Your task to perform on an android device: create a new album in the google photos Image 0: 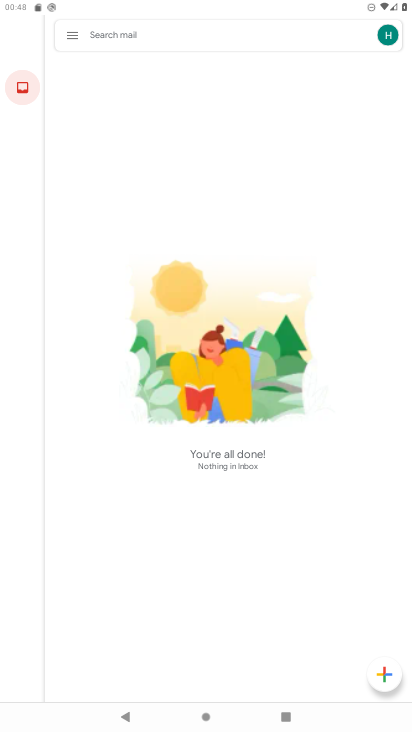
Step 0: press home button
Your task to perform on an android device: create a new album in the google photos Image 1: 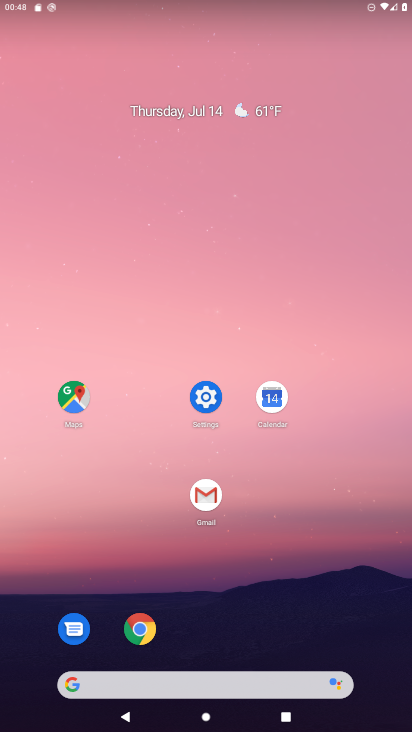
Step 1: drag from (400, 716) to (325, 121)
Your task to perform on an android device: create a new album in the google photos Image 2: 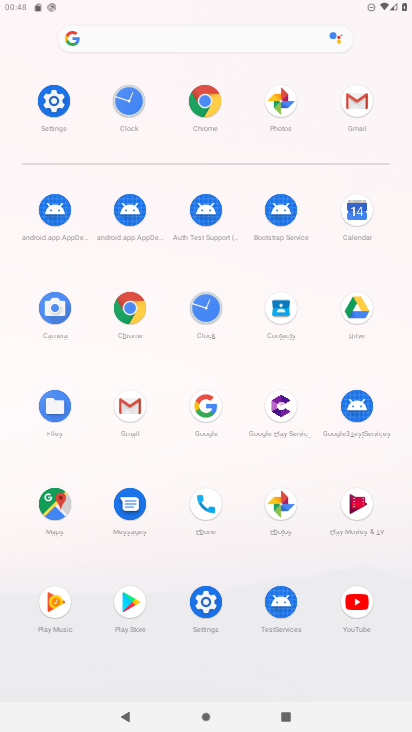
Step 2: click (287, 509)
Your task to perform on an android device: create a new album in the google photos Image 3: 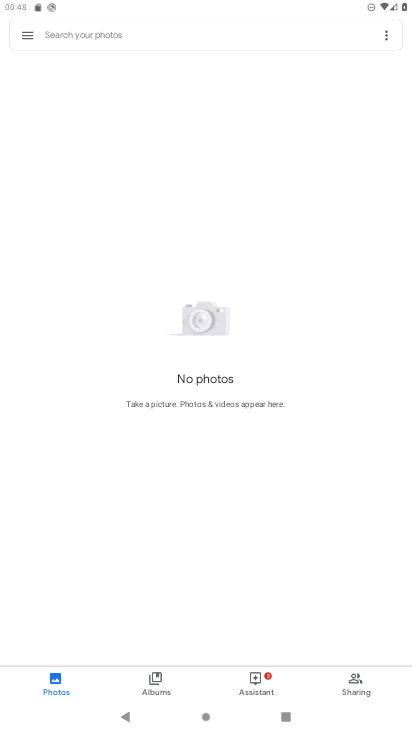
Step 3: click (261, 685)
Your task to perform on an android device: create a new album in the google photos Image 4: 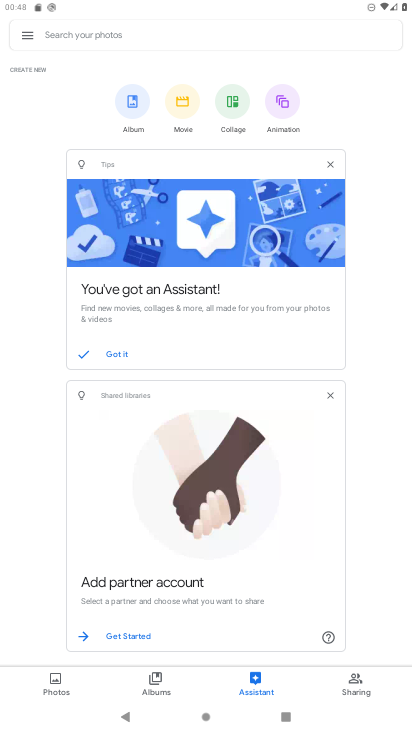
Step 4: task complete